Your task to perform on an android device: Go to Wikipedia Image 0: 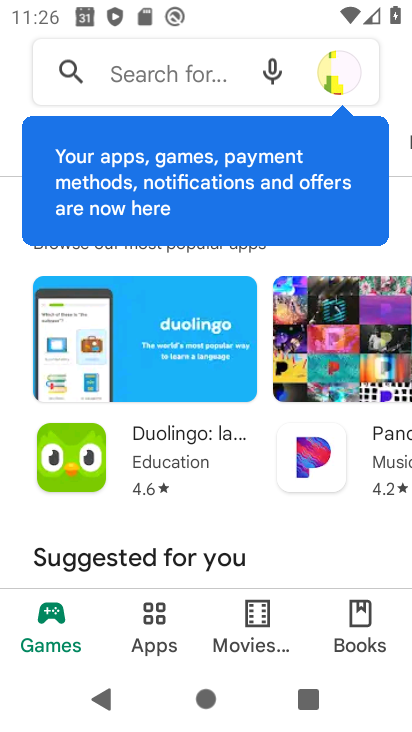
Step 0: press home button
Your task to perform on an android device: Go to Wikipedia Image 1: 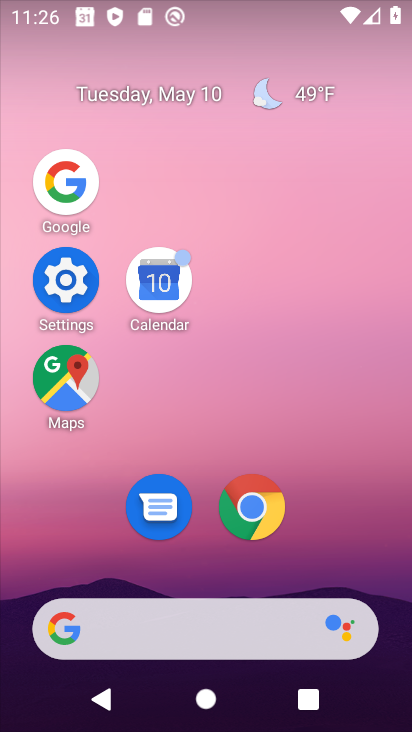
Step 1: click (269, 508)
Your task to perform on an android device: Go to Wikipedia Image 2: 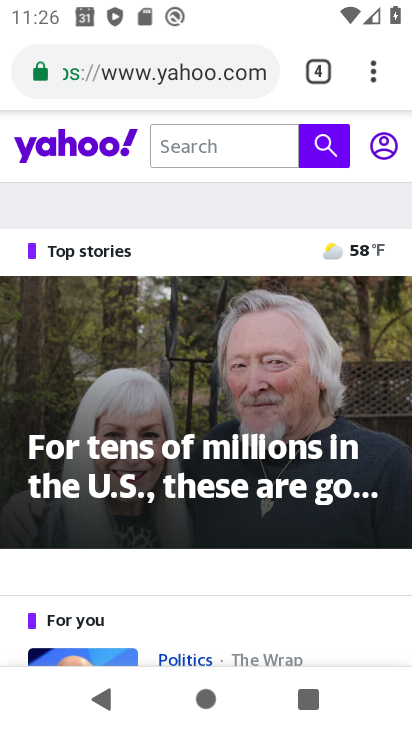
Step 2: click (324, 84)
Your task to perform on an android device: Go to Wikipedia Image 3: 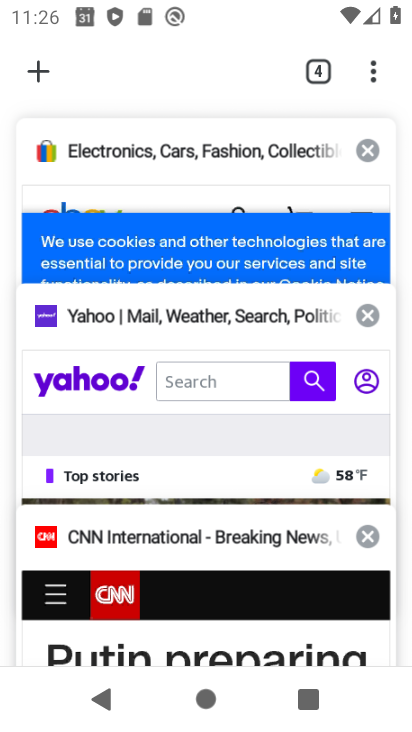
Step 3: click (28, 82)
Your task to perform on an android device: Go to Wikipedia Image 4: 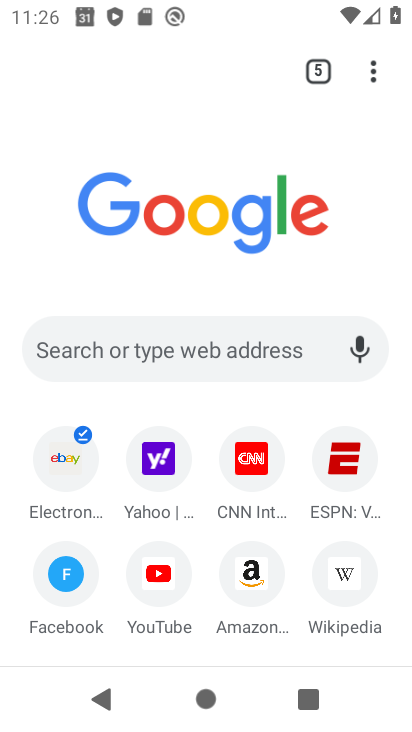
Step 4: click (350, 591)
Your task to perform on an android device: Go to Wikipedia Image 5: 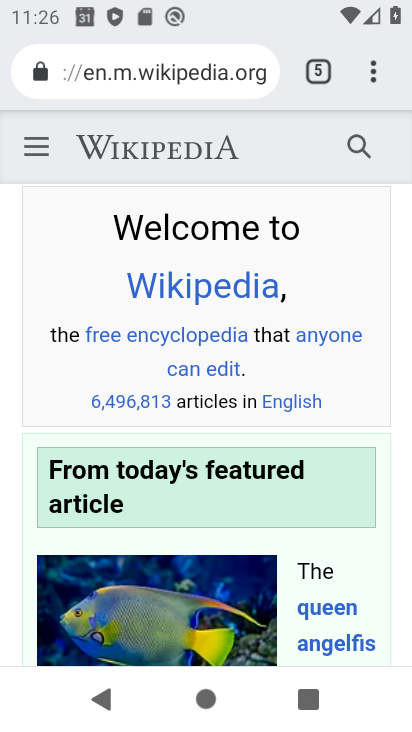
Step 5: task complete